Your task to perform on an android device: check storage Image 0: 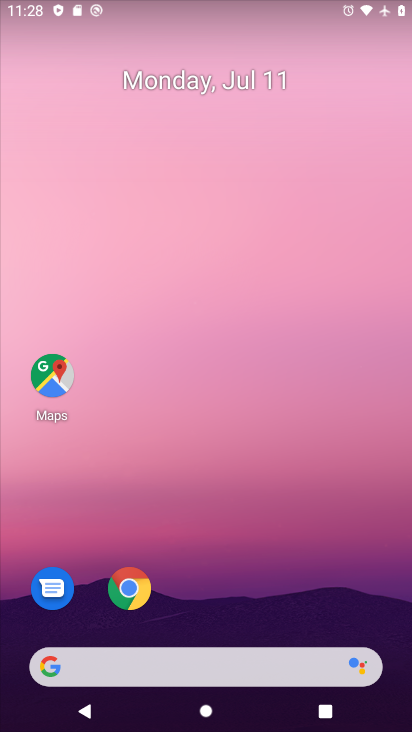
Step 0: drag from (156, 671) to (221, 0)
Your task to perform on an android device: check storage Image 1: 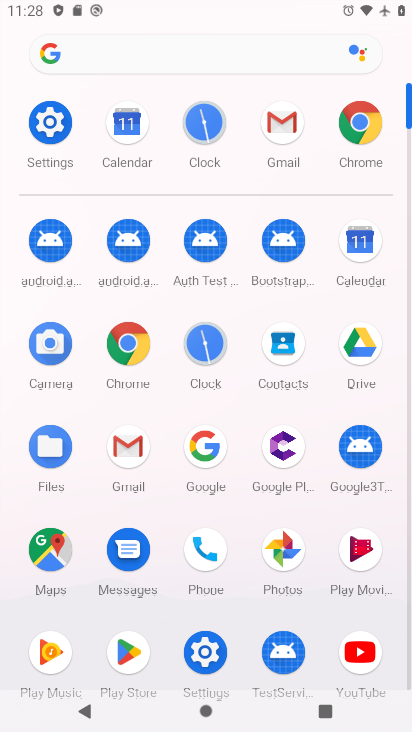
Step 1: click (52, 129)
Your task to perform on an android device: check storage Image 2: 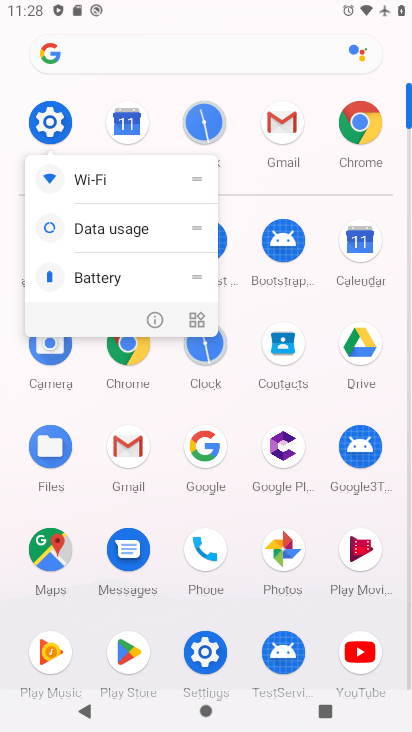
Step 2: click (47, 126)
Your task to perform on an android device: check storage Image 3: 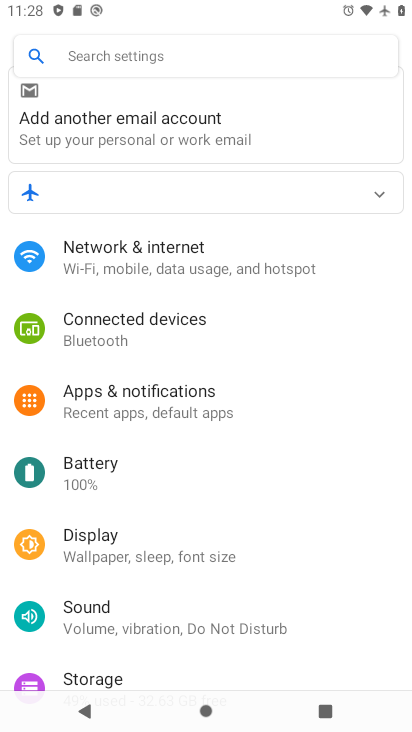
Step 3: drag from (192, 591) to (253, 204)
Your task to perform on an android device: check storage Image 4: 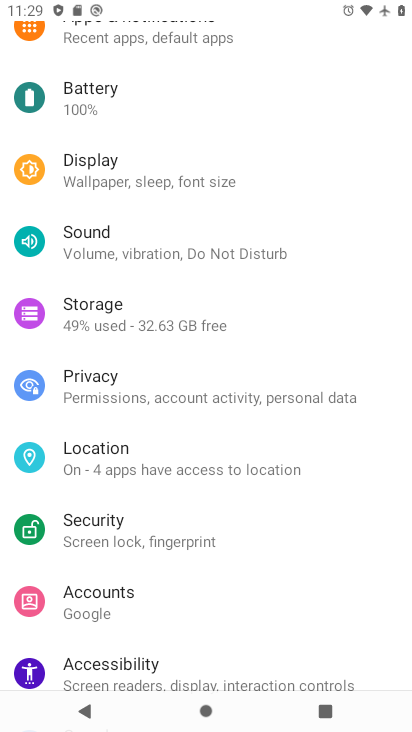
Step 4: click (141, 322)
Your task to perform on an android device: check storage Image 5: 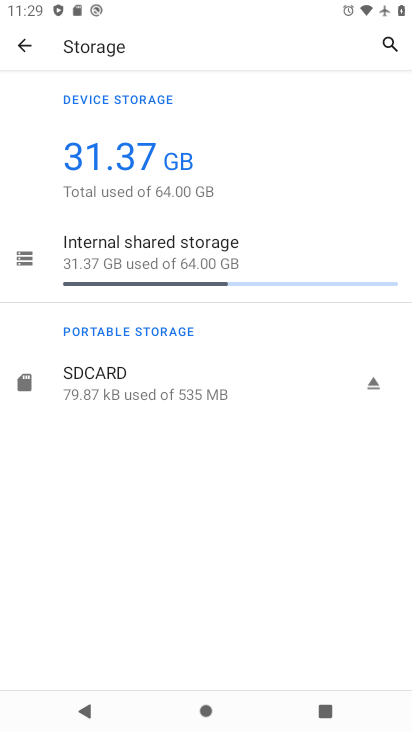
Step 5: task complete